Your task to perform on an android device: Open Chrome and go to settings Image 0: 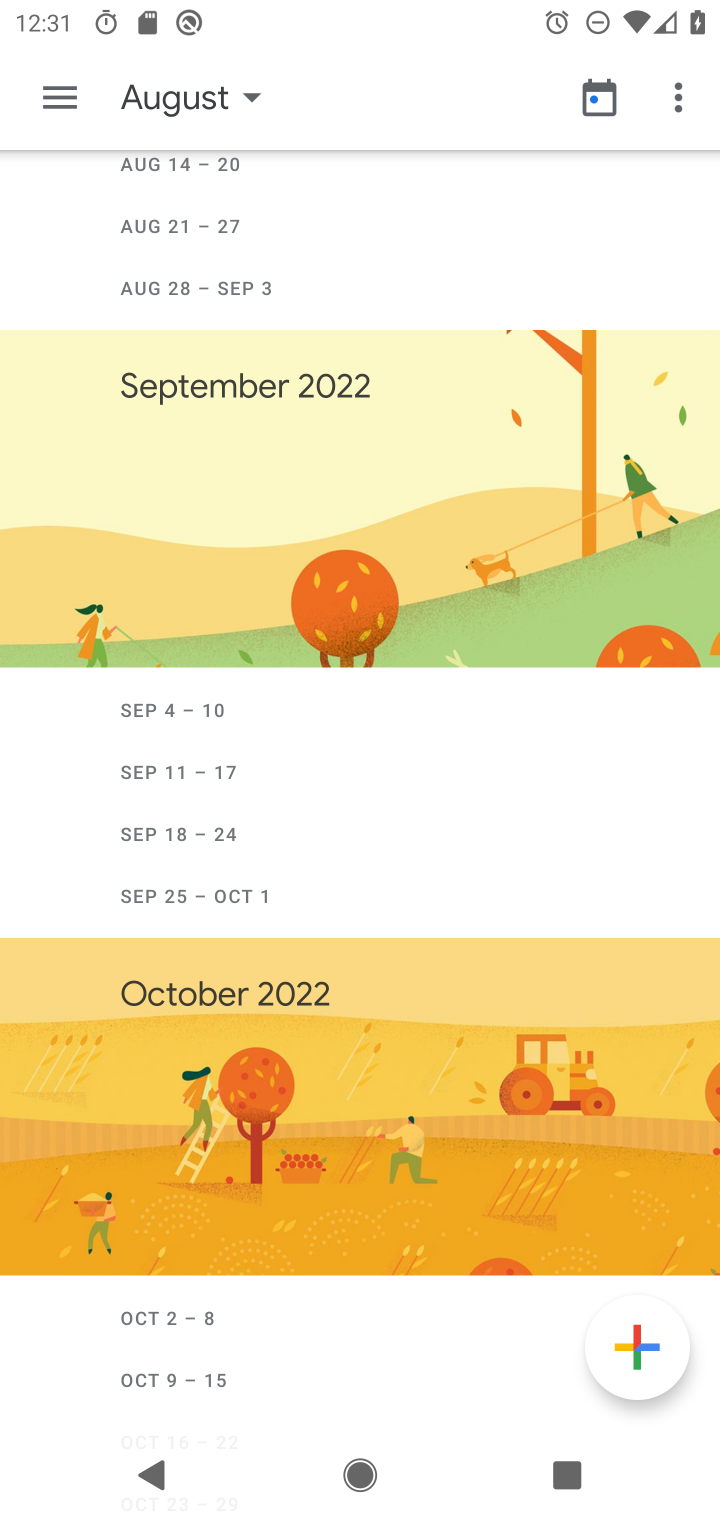
Step 0: press home button
Your task to perform on an android device: Open Chrome and go to settings Image 1: 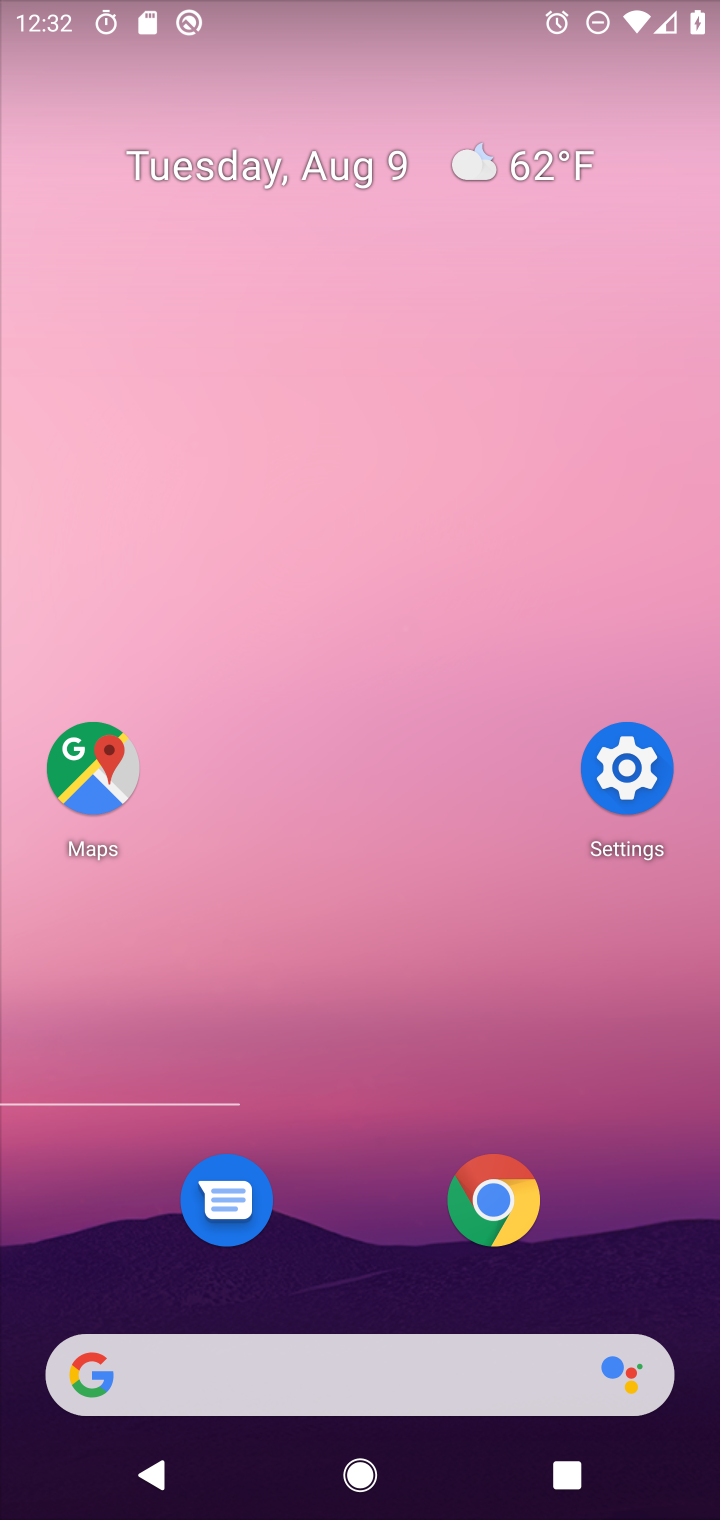
Step 1: click (472, 1197)
Your task to perform on an android device: Open Chrome and go to settings Image 2: 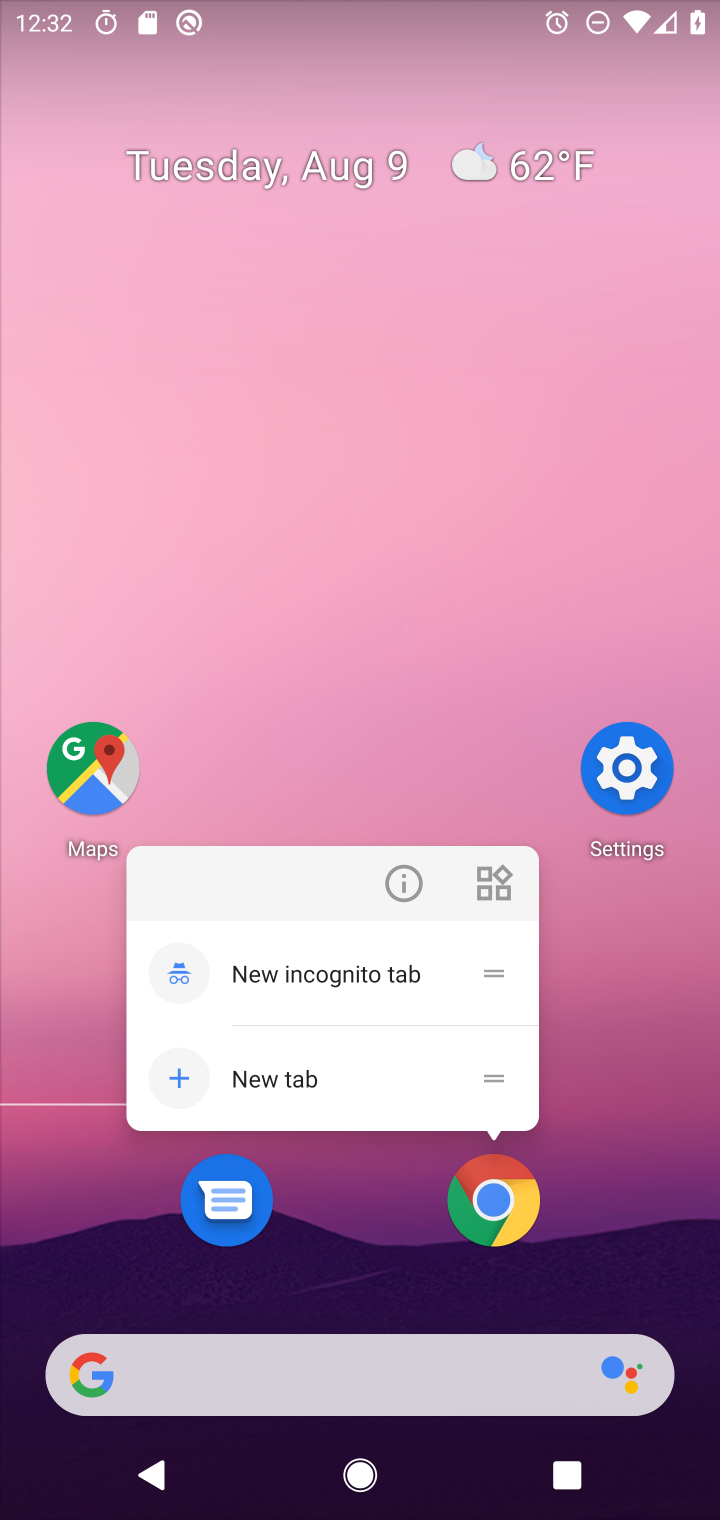
Step 2: click (472, 1205)
Your task to perform on an android device: Open Chrome and go to settings Image 3: 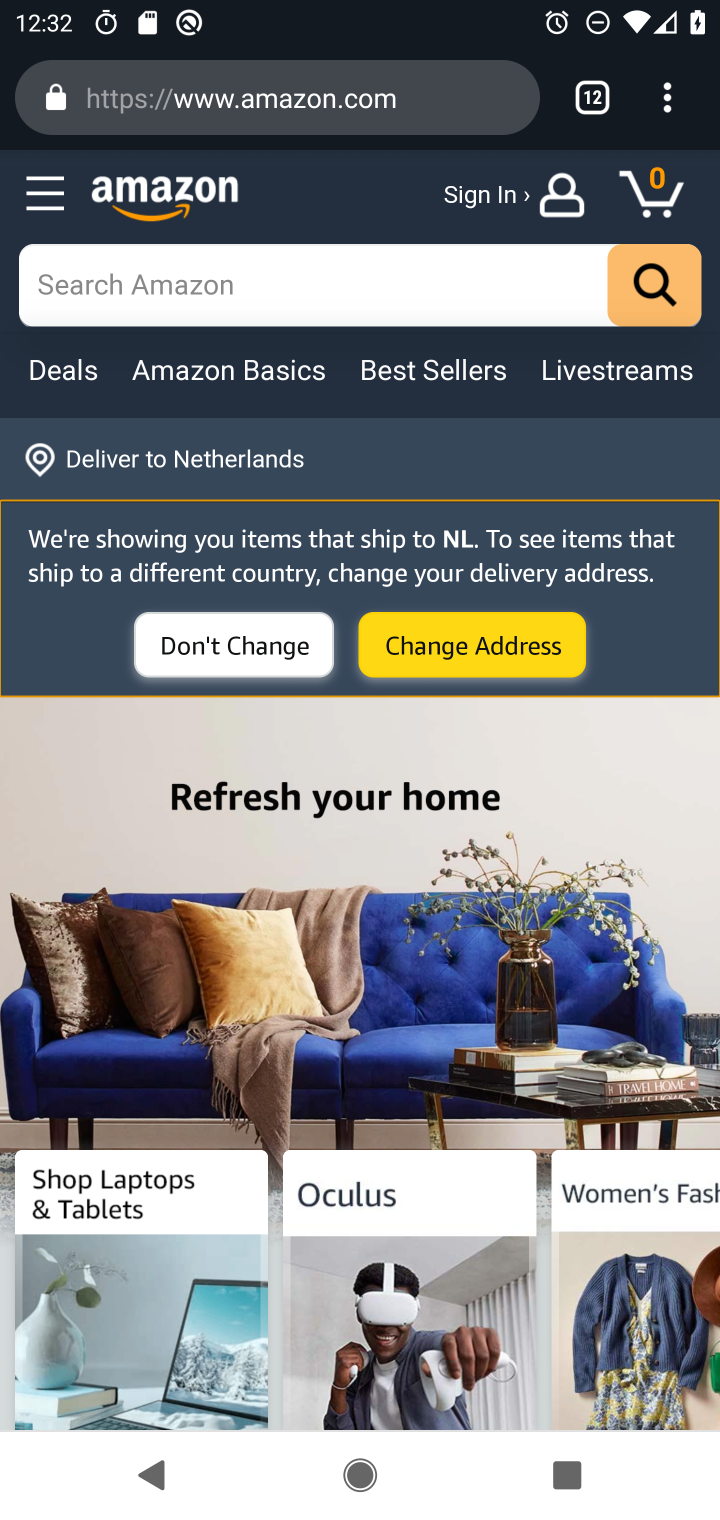
Step 3: task complete